Your task to perform on an android device: open chrome privacy settings Image 0: 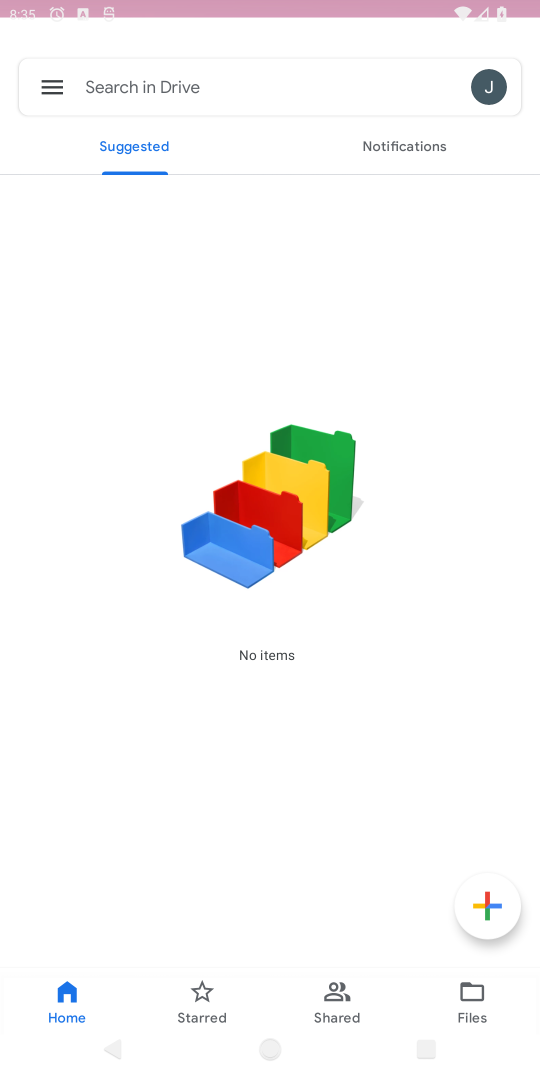
Step 0: press home button
Your task to perform on an android device: open chrome privacy settings Image 1: 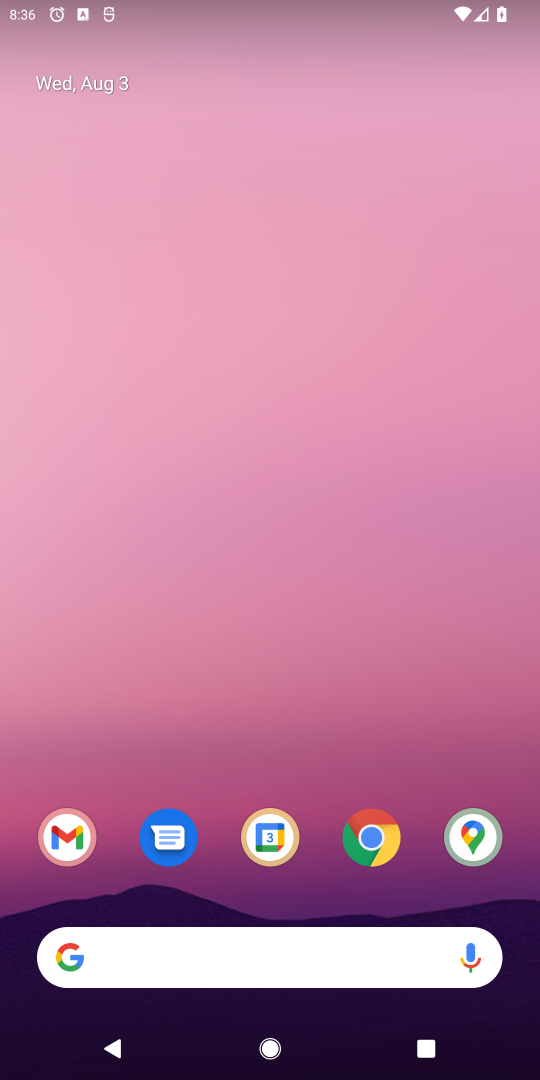
Step 1: click (369, 834)
Your task to perform on an android device: open chrome privacy settings Image 2: 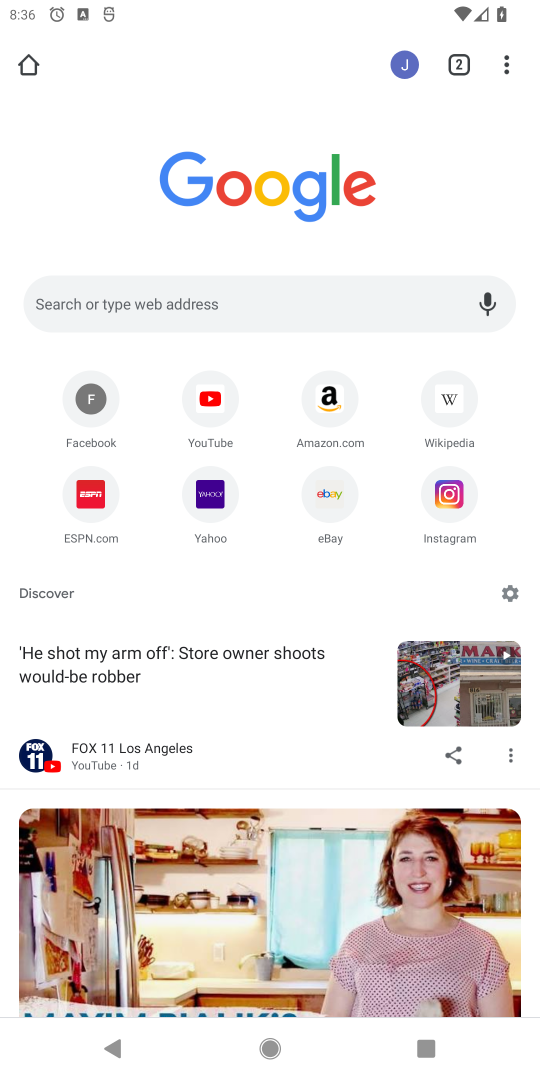
Step 2: drag from (510, 67) to (317, 629)
Your task to perform on an android device: open chrome privacy settings Image 3: 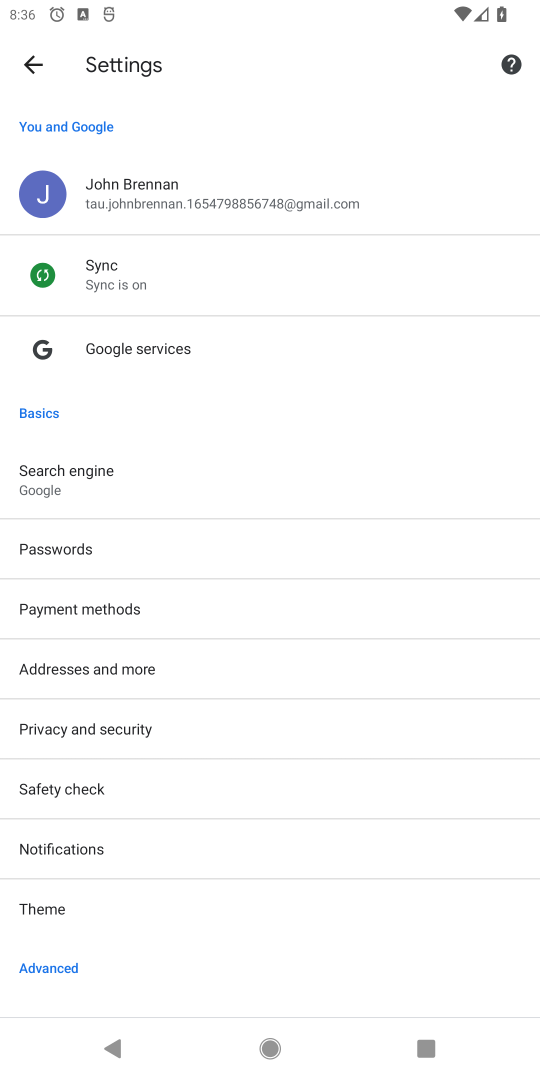
Step 3: click (84, 728)
Your task to perform on an android device: open chrome privacy settings Image 4: 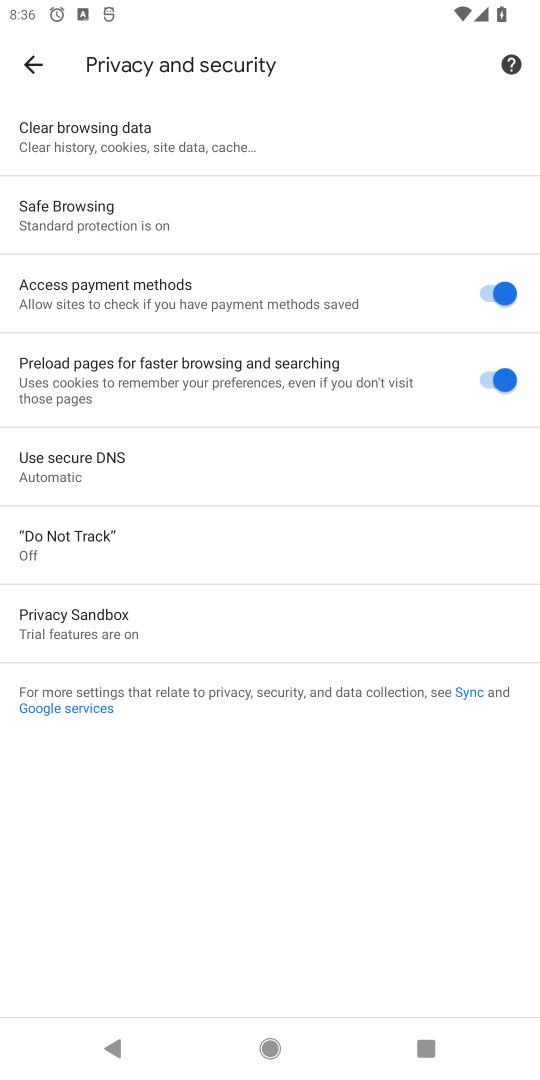
Step 4: task complete